Your task to perform on an android device: Play the last video I watched on Youtube Image 0: 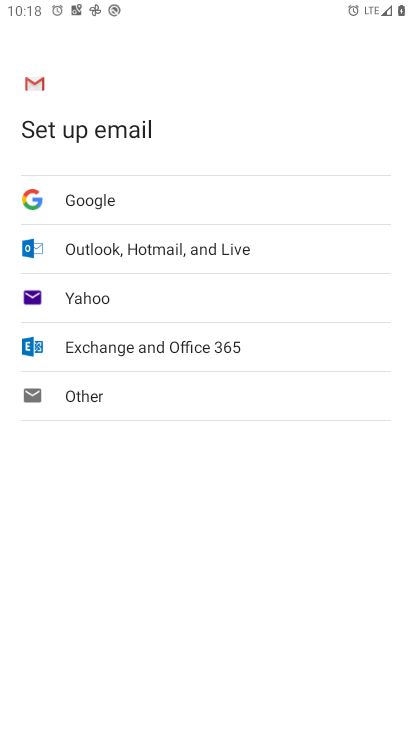
Step 0: press home button
Your task to perform on an android device: Play the last video I watched on Youtube Image 1: 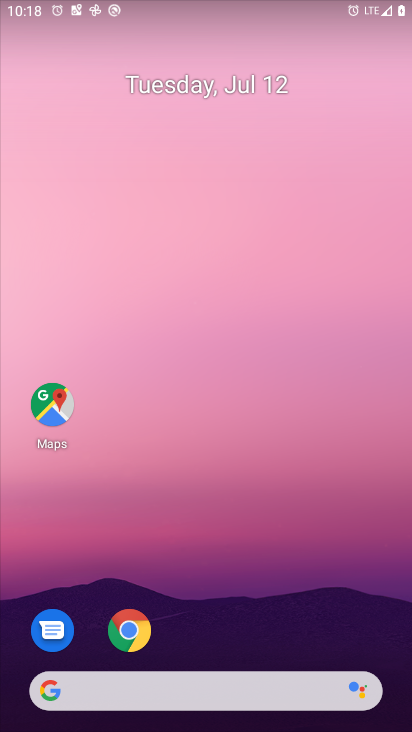
Step 1: drag from (244, 592) to (406, 656)
Your task to perform on an android device: Play the last video I watched on Youtube Image 2: 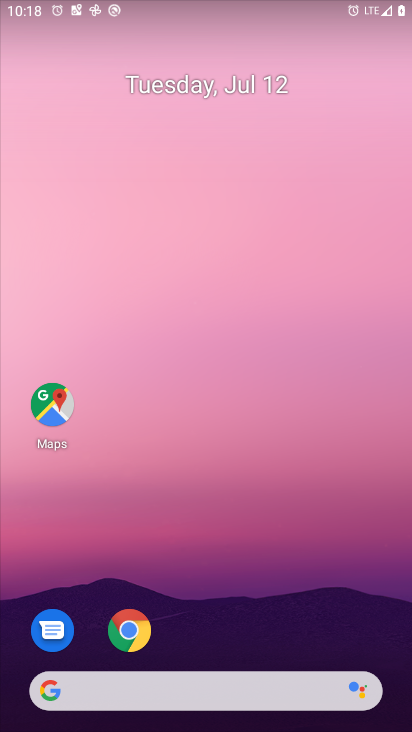
Step 2: drag from (329, 488) to (399, 429)
Your task to perform on an android device: Play the last video I watched on Youtube Image 3: 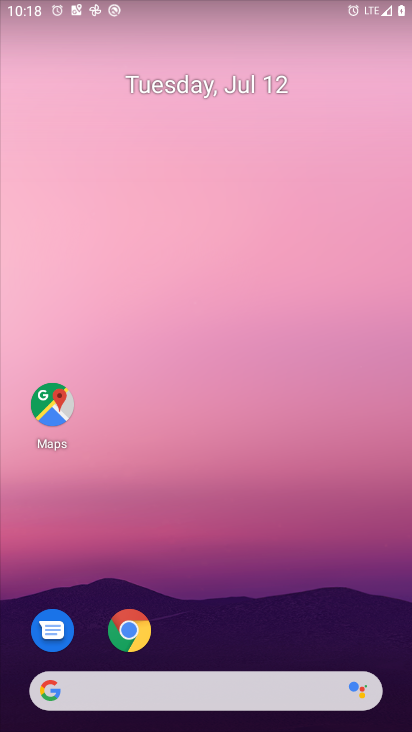
Step 3: drag from (244, 652) to (406, 633)
Your task to perform on an android device: Play the last video I watched on Youtube Image 4: 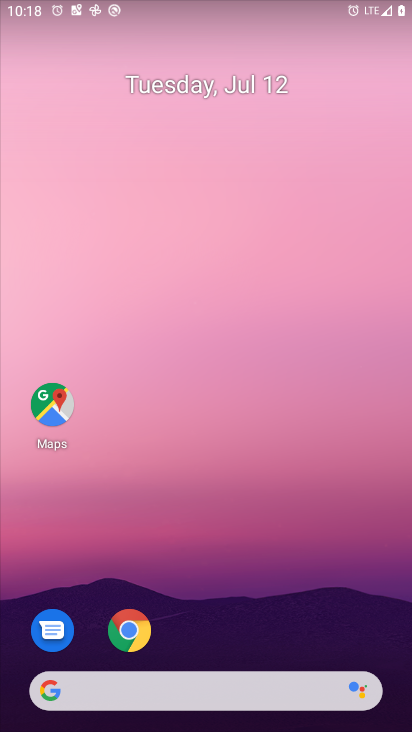
Step 4: drag from (317, 659) to (407, 392)
Your task to perform on an android device: Play the last video I watched on Youtube Image 5: 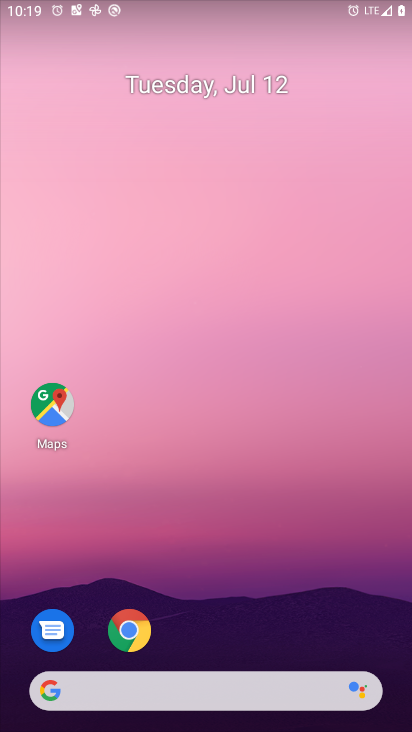
Step 5: drag from (242, 618) to (402, 592)
Your task to perform on an android device: Play the last video I watched on Youtube Image 6: 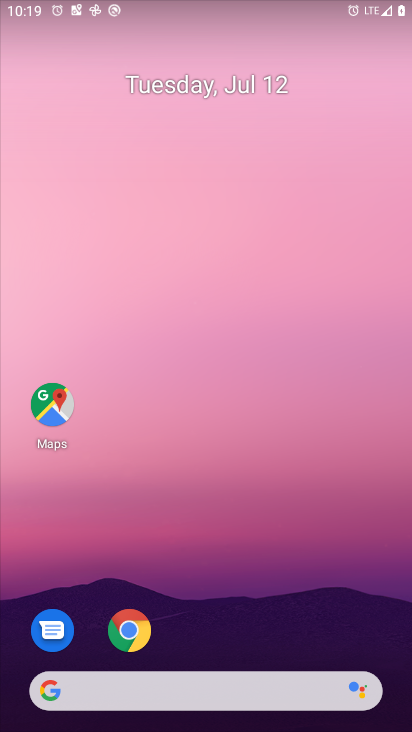
Step 6: drag from (279, 634) to (302, 24)
Your task to perform on an android device: Play the last video I watched on Youtube Image 7: 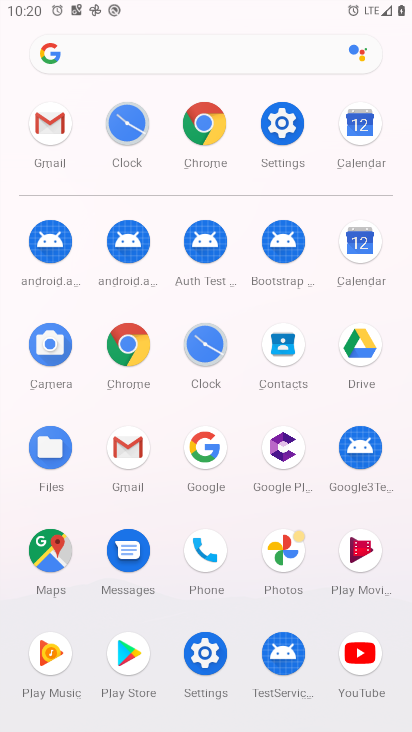
Step 7: click (368, 654)
Your task to perform on an android device: Play the last video I watched on Youtube Image 8: 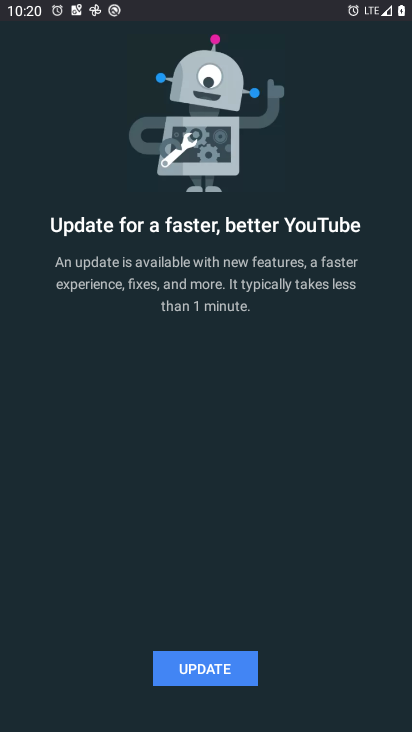
Step 8: click (225, 679)
Your task to perform on an android device: Play the last video I watched on Youtube Image 9: 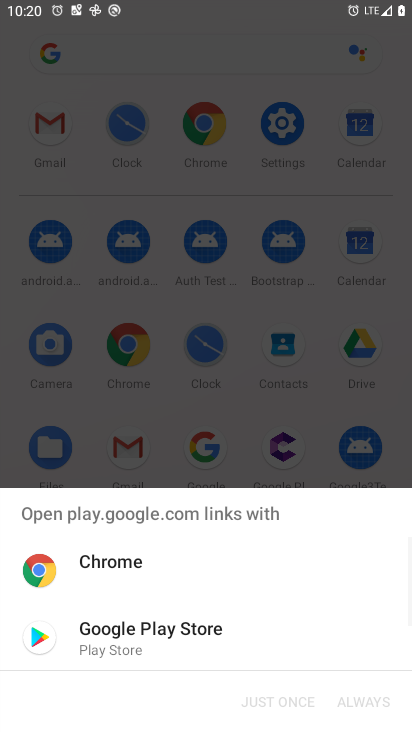
Step 9: click (128, 639)
Your task to perform on an android device: Play the last video I watched on Youtube Image 10: 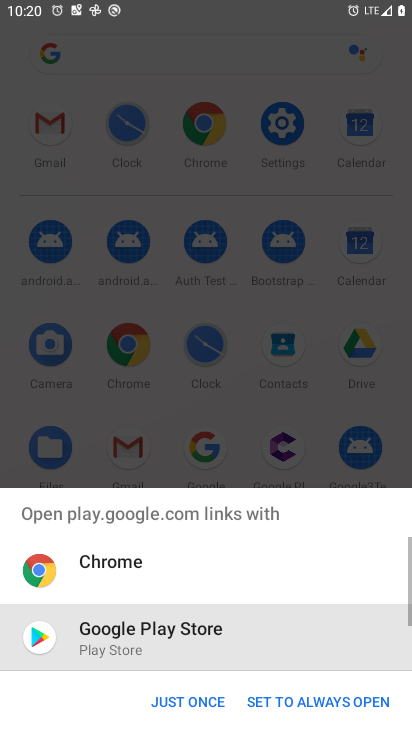
Step 10: click (197, 705)
Your task to perform on an android device: Play the last video I watched on Youtube Image 11: 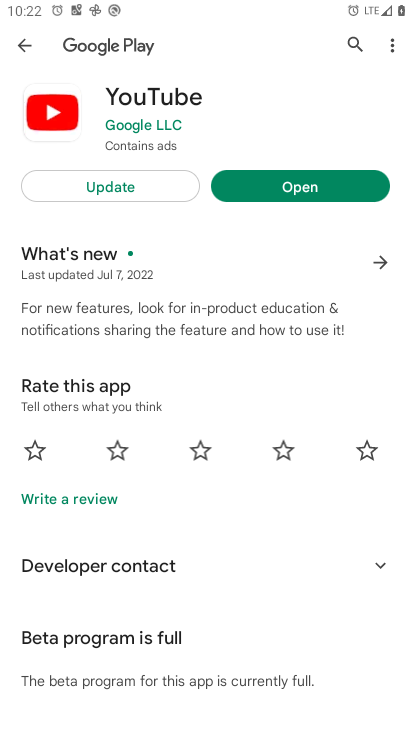
Step 11: click (314, 171)
Your task to perform on an android device: Play the last video I watched on Youtube Image 12: 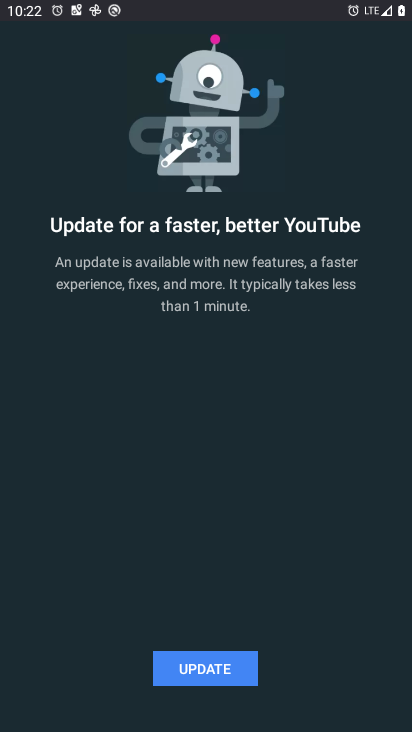
Step 12: click (208, 669)
Your task to perform on an android device: Play the last video I watched on Youtube Image 13: 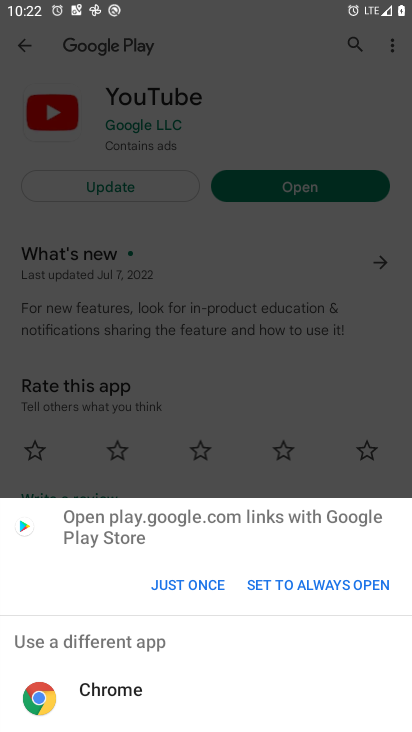
Step 13: click (192, 571)
Your task to perform on an android device: Play the last video I watched on Youtube Image 14: 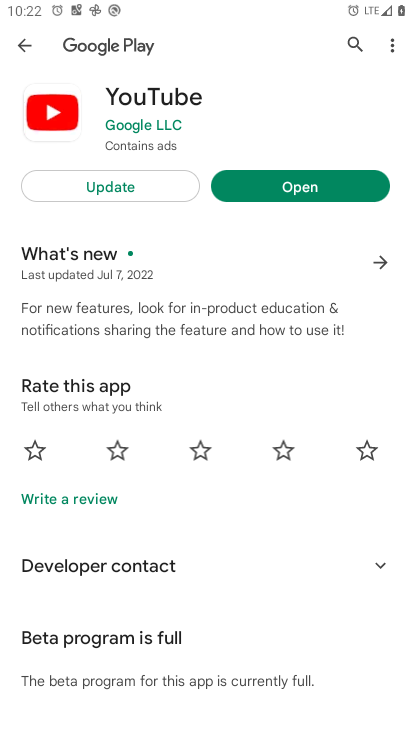
Step 14: click (148, 179)
Your task to perform on an android device: Play the last video I watched on Youtube Image 15: 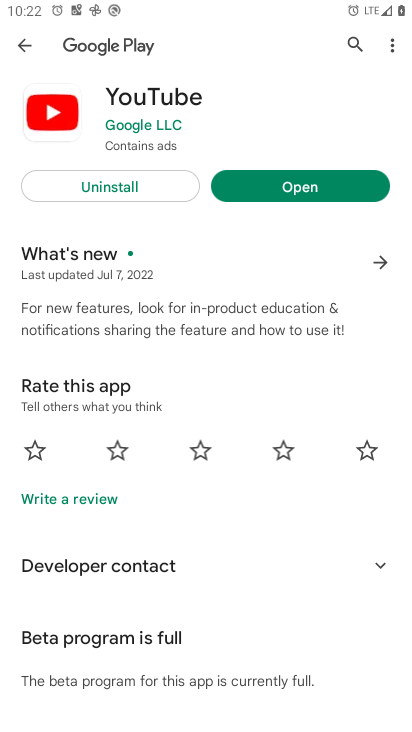
Step 15: click (321, 191)
Your task to perform on an android device: Play the last video I watched on Youtube Image 16: 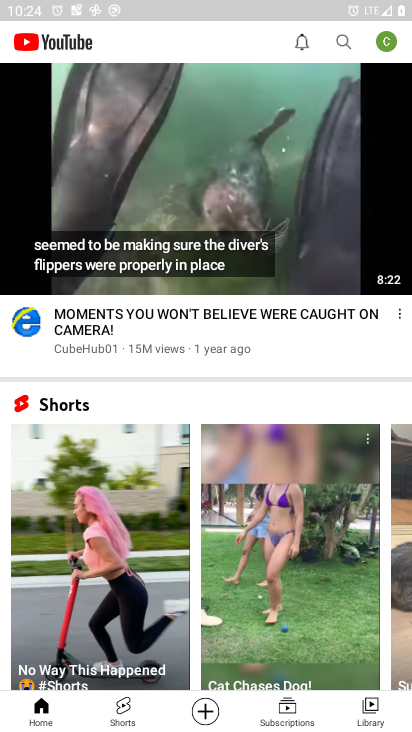
Step 16: click (370, 696)
Your task to perform on an android device: Play the last video I watched on Youtube Image 17: 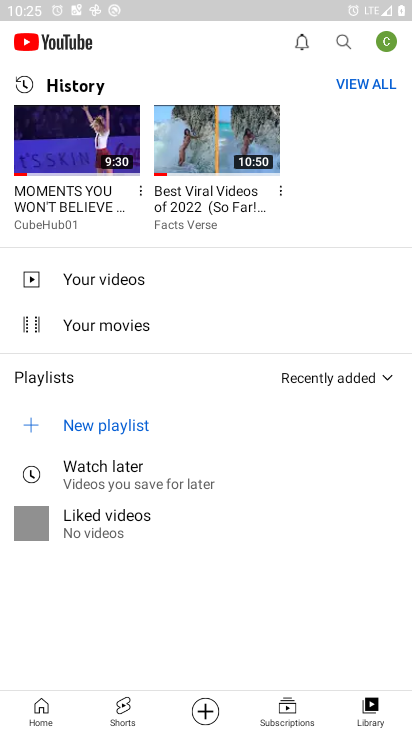
Step 17: click (75, 285)
Your task to perform on an android device: Play the last video I watched on Youtube Image 18: 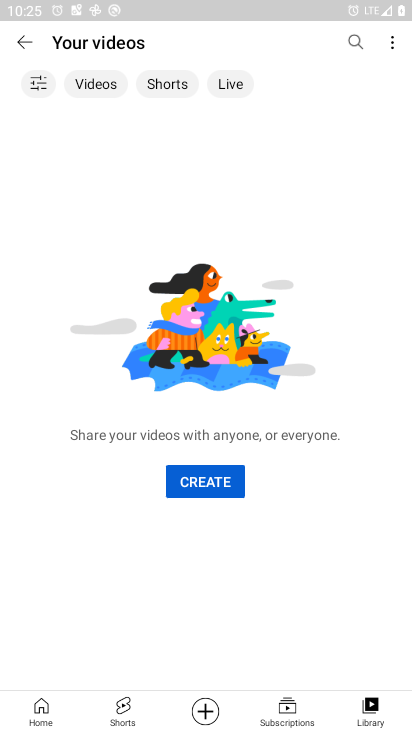
Step 18: task complete